Your task to perform on an android device: change alarm snooze length Image 0: 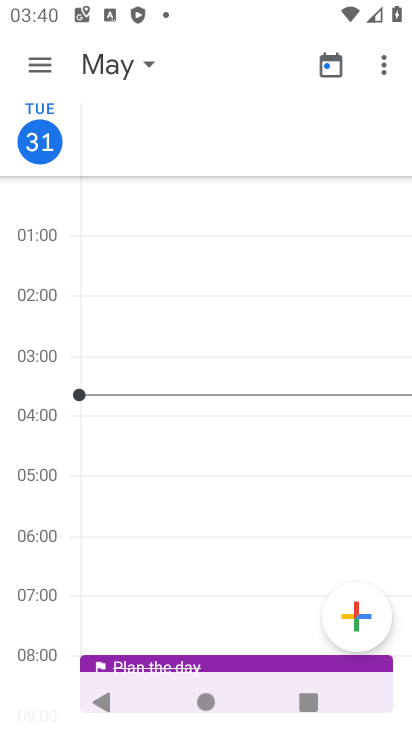
Step 0: press home button
Your task to perform on an android device: change alarm snooze length Image 1: 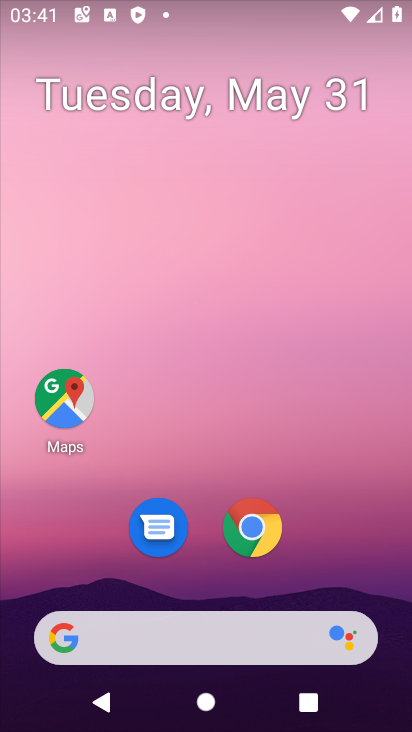
Step 1: drag from (400, 616) to (346, 58)
Your task to perform on an android device: change alarm snooze length Image 2: 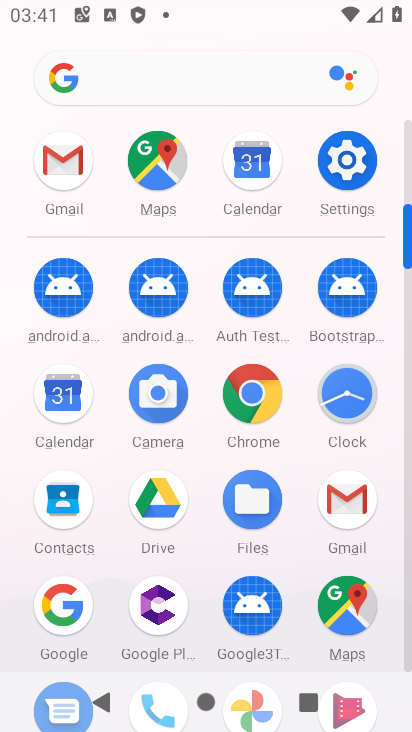
Step 2: click (407, 633)
Your task to perform on an android device: change alarm snooze length Image 3: 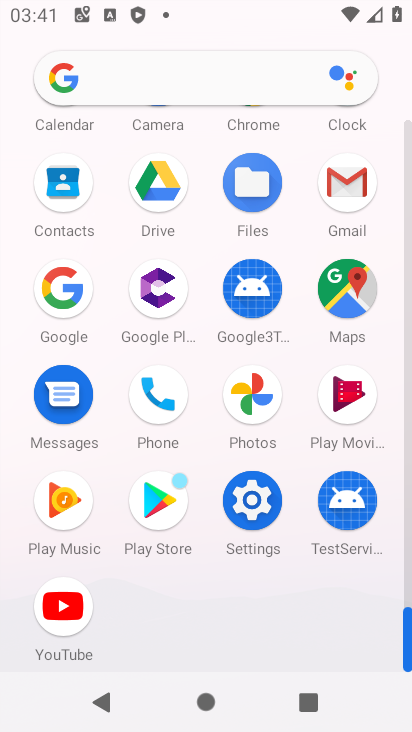
Step 3: click (408, 212)
Your task to perform on an android device: change alarm snooze length Image 4: 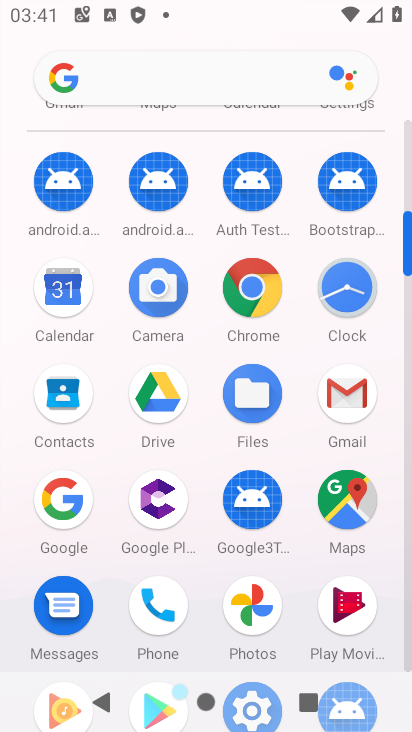
Step 4: click (343, 283)
Your task to perform on an android device: change alarm snooze length Image 5: 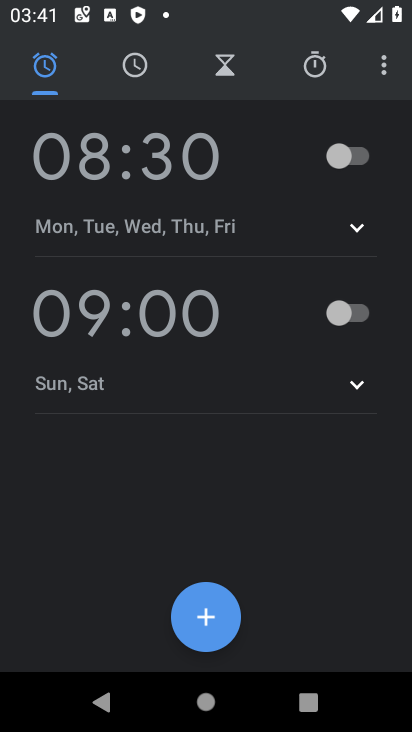
Step 5: click (382, 75)
Your task to perform on an android device: change alarm snooze length Image 6: 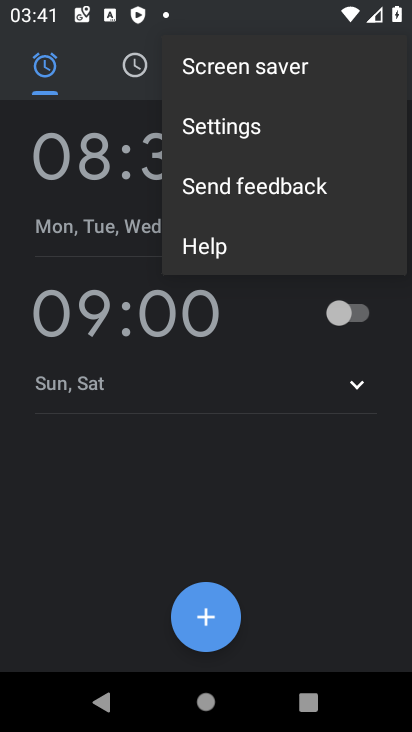
Step 6: click (216, 125)
Your task to perform on an android device: change alarm snooze length Image 7: 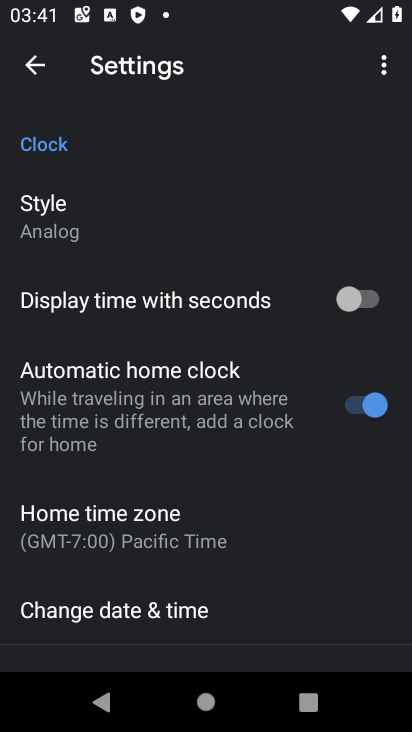
Step 7: drag from (263, 548) to (263, 178)
Your task to perform on an android device: change alarm snooze length Image 8: 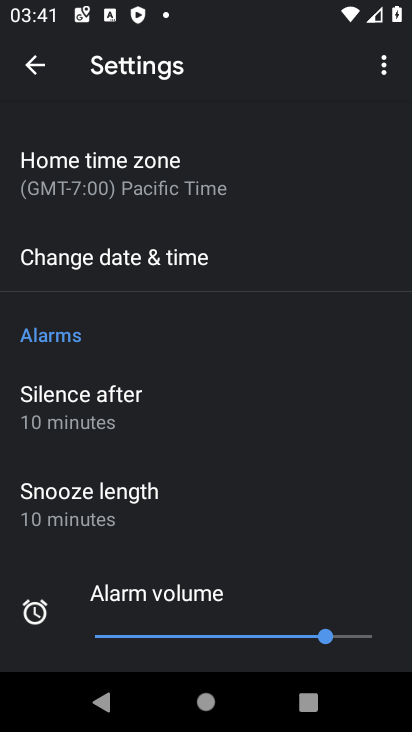
Step 8: click (111, 499)
Your task to perform on an android device: change alarm snooze length Image 9: 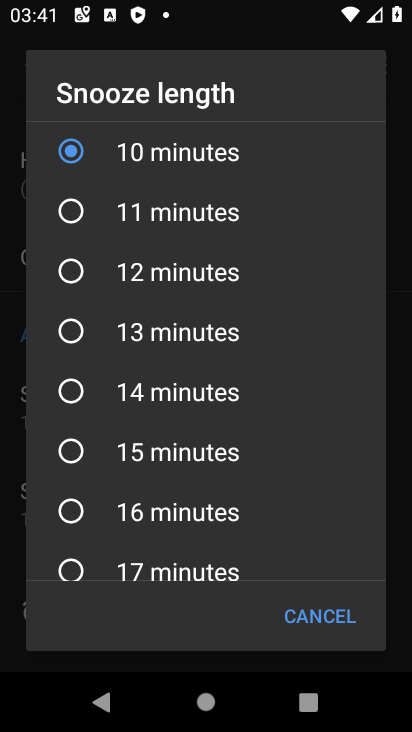
Step 9: click (79, 333)
Your task to perform on an android device: change alarm snooze length Image 10: 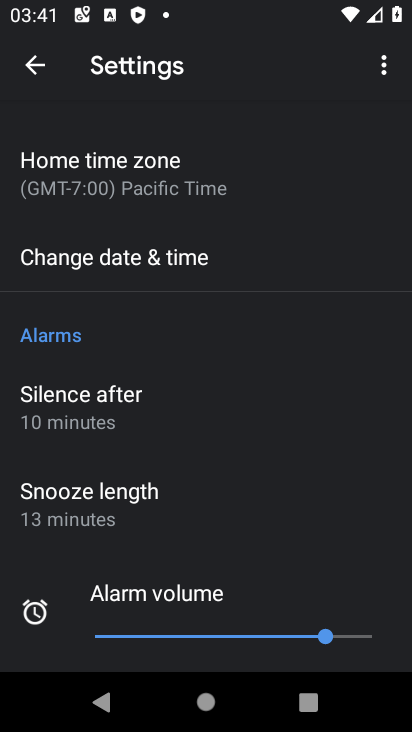
Step 10: task complete